Your task to perform on an android device: check data usage Image 0: 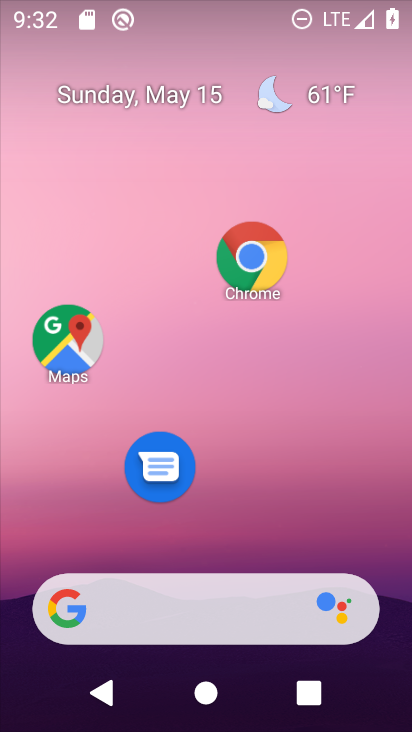
Step 0: drag from (263, 8) to (358, 591)
Your task to perform on an android device: check data usage Image 1: 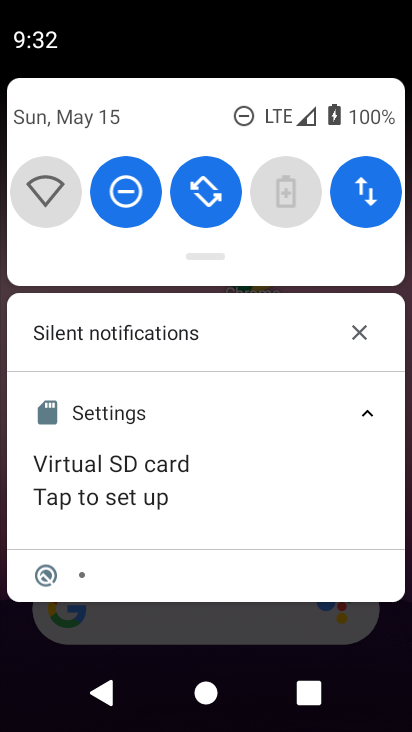
Step 1: click (366, 201)
Your task to perform on an android device: check data usage Image 2: 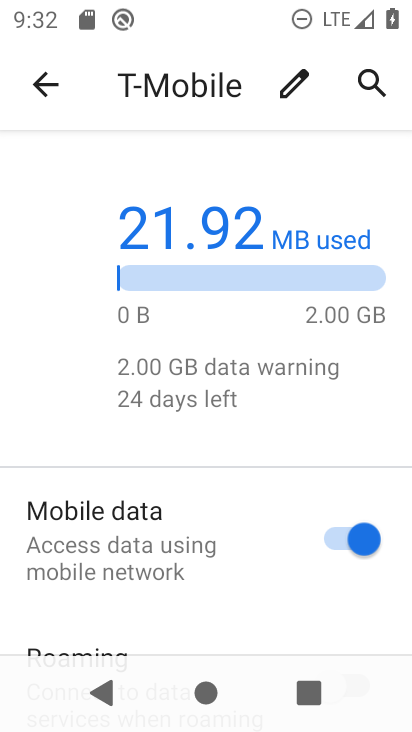
Step 2: task complete